Your task to perform on an android device: Go to display settings Image 0: 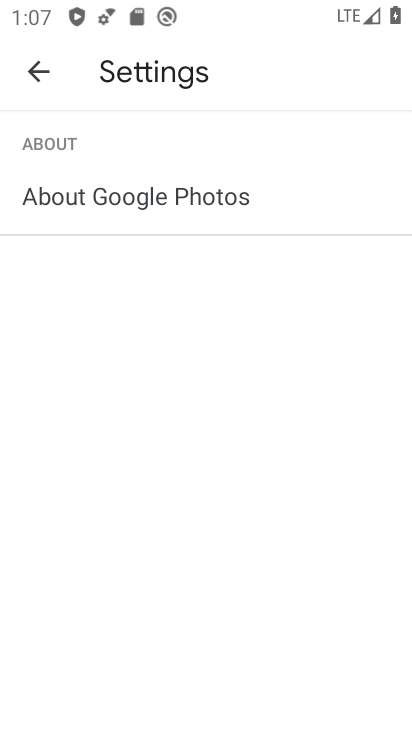
Step 0: press home button
Your task to perform on an android device: Go to display settings Image 1: 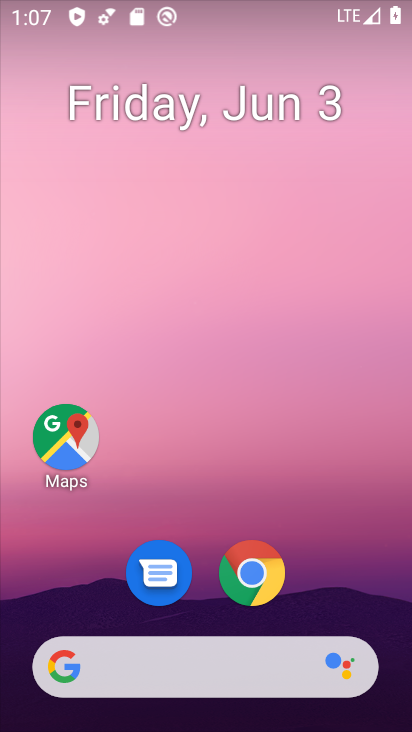
Step 1: drag from (324, 583) to (349, 169)
Your task to perform on an android device: Go to display settings Image 2: 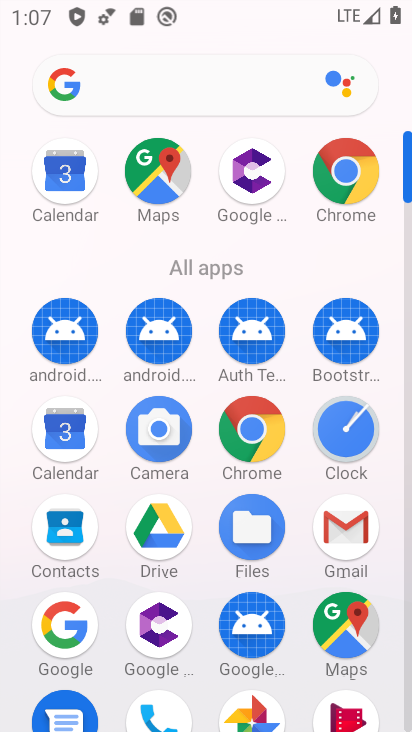
Step 2: drag from (198, 594) to (201, 390)
Your task to perform on an android device: Go to display settings Image 3: 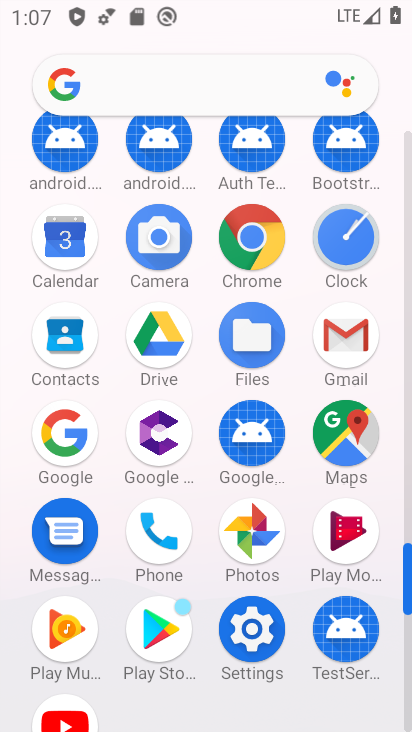
Step 3: click (279, 632)
Your task to perform on an android device: Go to display settings Image 4: 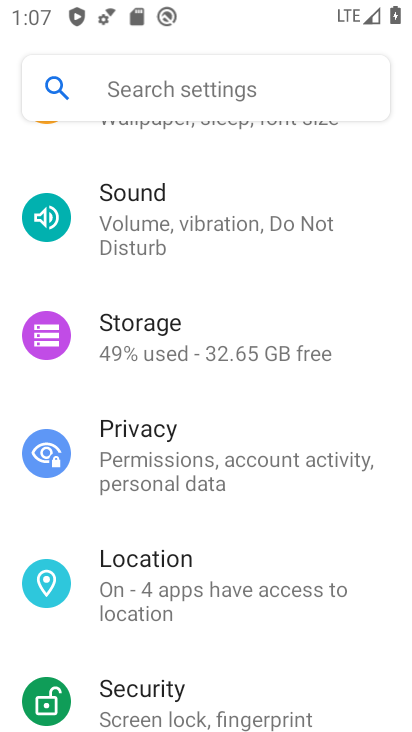
Step 4: drag from (348, 288) to (342, 329)
Your task to perform on an android device: Go to display settings Image 5: 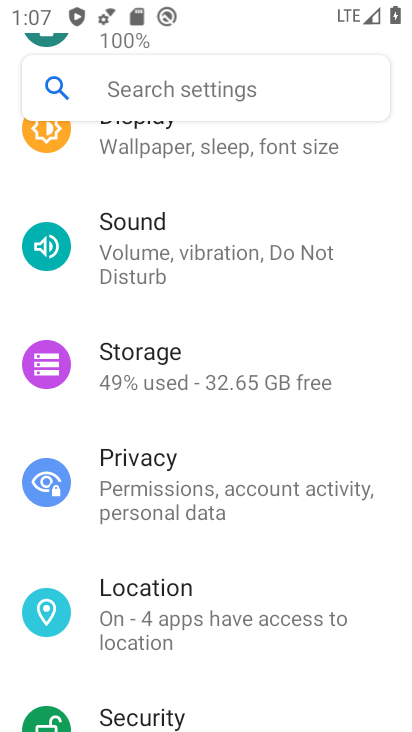
Step 5: drag from (341, 210) to (341, 327)
Your task to perform on an android device: Go to display settings Image 6: 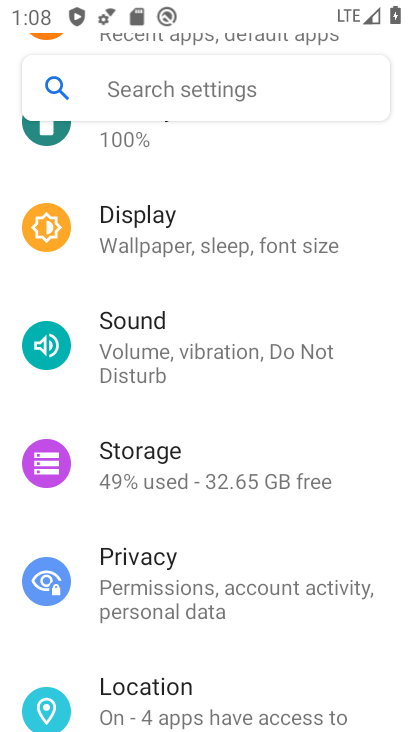
Step 6: drag from (364, 236) to (366, 300)
Your task to perform on an android device: Go to display settings Image 7: 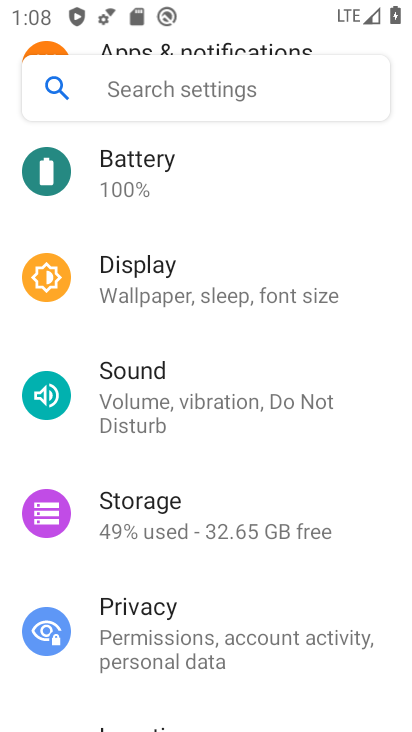
Step 7: drag from (365, 411) to (364, 350)
Your task to perform on an android device: Go to display settings Image 8: 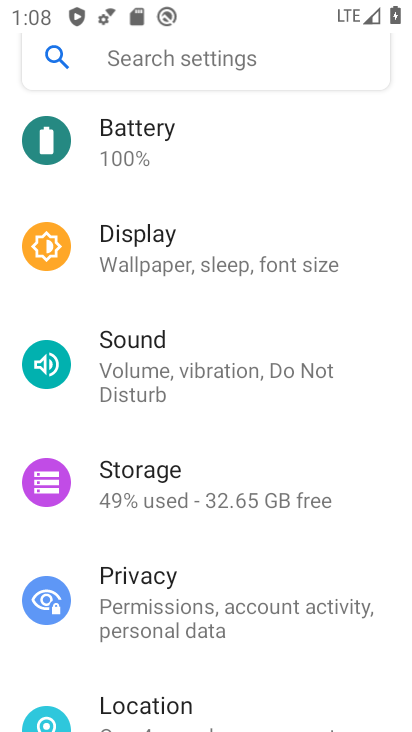
Step 8: drag from (364, 421) to (370, 313)
Your task to perform on an android device: Go to display settings Image 9: 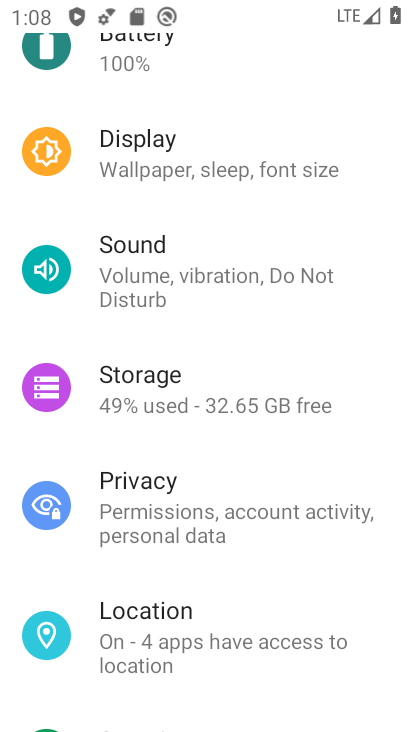
Step 9: drag from (367, 233) to (358, 362)
Your task to perform on an android device: Go to display settings Image 10: 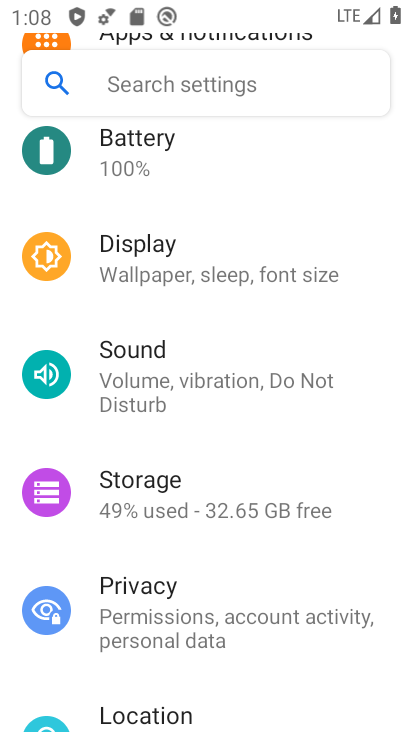
Step 10: click (325, 272)
Your task to perform on an android device: Go to display settings Image 11: 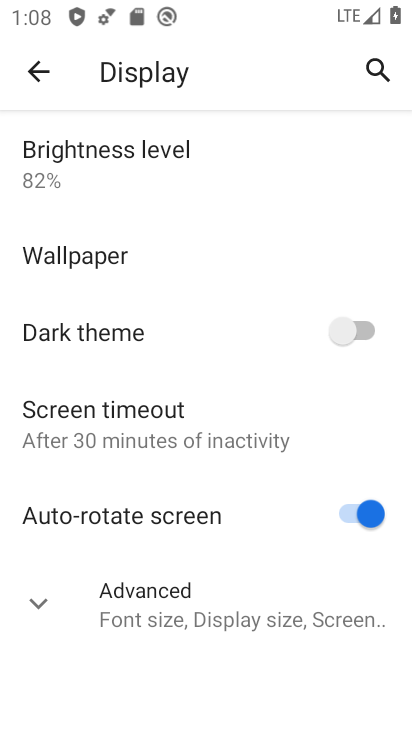
Step 11: task complete